Your task to perform on an android device: Open Yahoo.com Image 0: 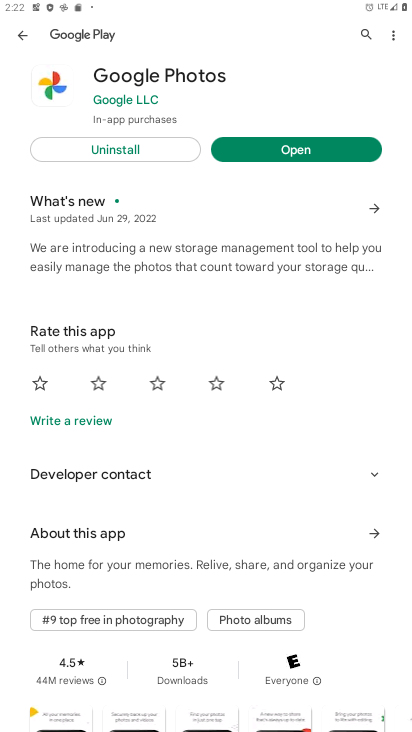
Step 0: press home button
Your task to perform on an android device: Open Yahoo.com Image 1: 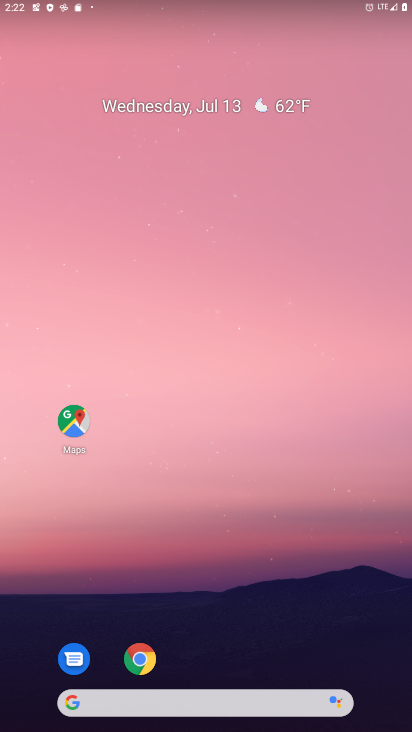
Step 1: click (138, 661)
Your task to perform on an android device: Open Yahoo.com Image 2: 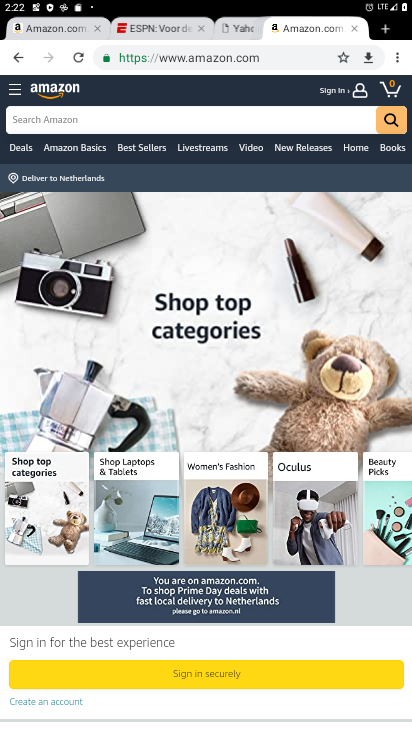
Step 2: click (397, 58)
Your task to perform on an android device: Open Yahoo.com Image 3: 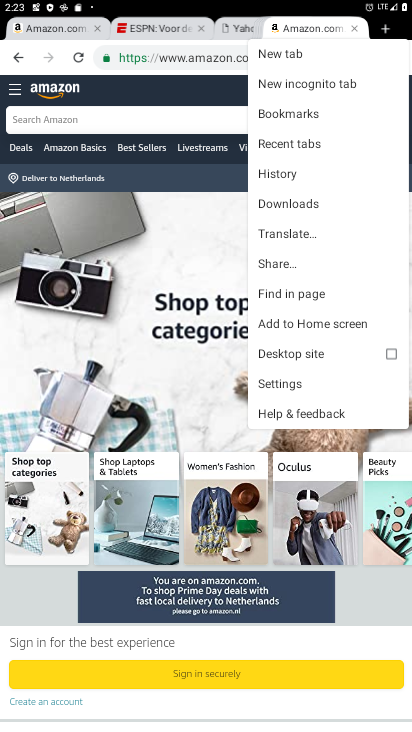
Step 3: click (280, 55)
Your task to perform on an android device: Open Yahoo.com Image 4: 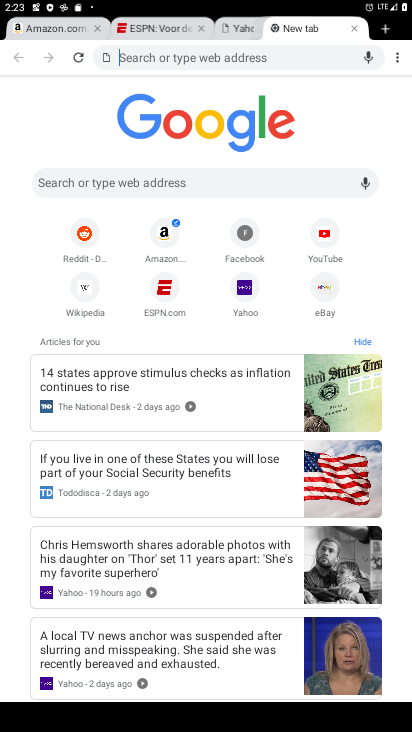
Step 4: click (243, 289)
Your task to perform on an android device: Open Yahoo.com Image 5: 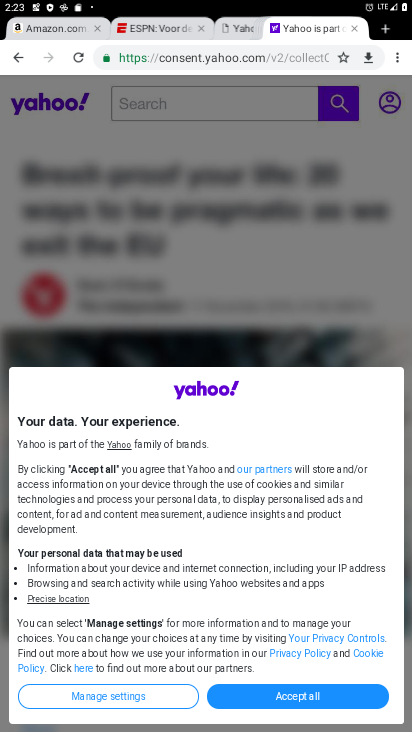
Step 5: task complete